Your task to perform on an android device: change text size in settings app Image 0: 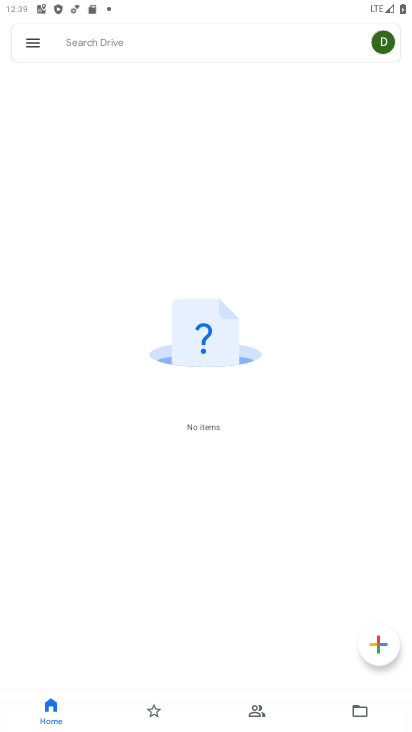
Step 0: press home button
Your task to perform on an android device: change text size in settings app Image 1: 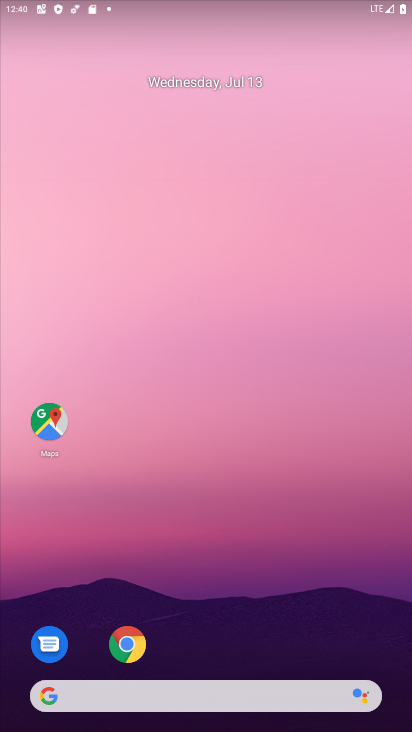
Step 1: drag from (203, 346) to (178, 183)
Your task to perform on an android device: change text size in settings app Image 2: 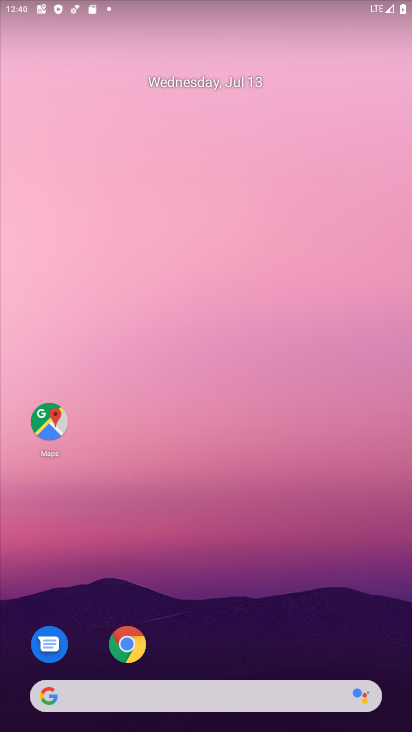
Step 2: drag from (167, 356) to (167, 278)
Your task to perform on an android device: change text size in settings app Image 3: 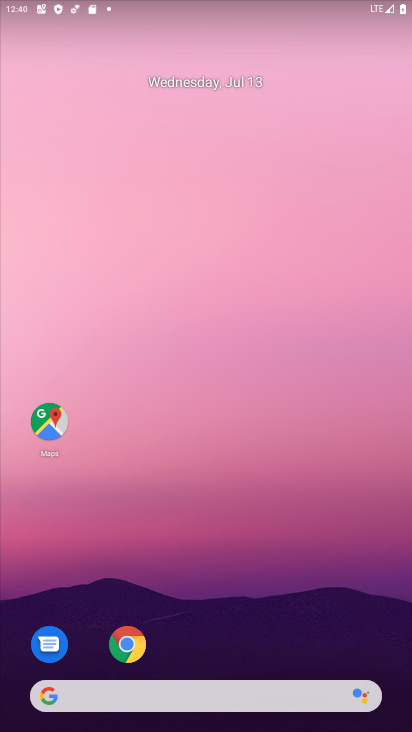
Step 3: drag from (170, 41) to (232, 58)
Your task to perform on an android device: change text size in settings app Image 4: 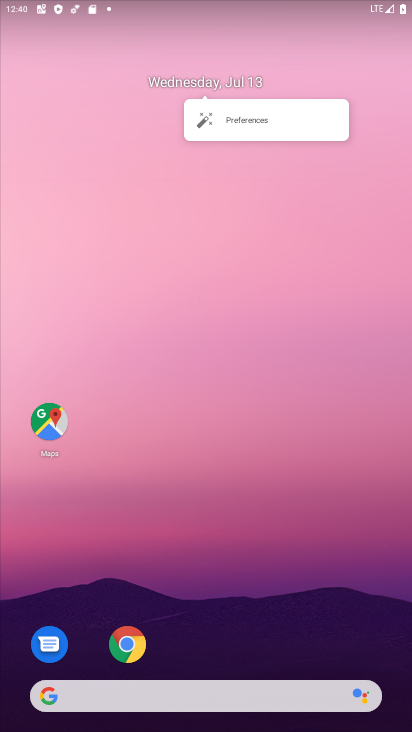
Step 4: drag from (199, 466) to (257, 6)
Your task to perform on an android device: change text size in settings app Image 5: 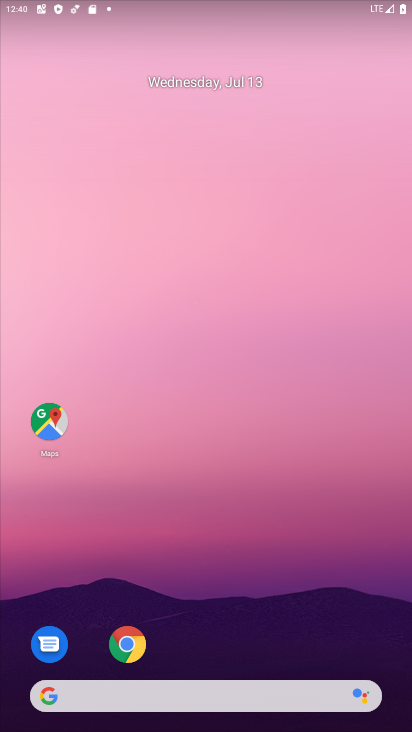
Step 5: drag from (189, 590) to (195, 33)
Your task to perform on an android device: change text size in settings app Image 6: 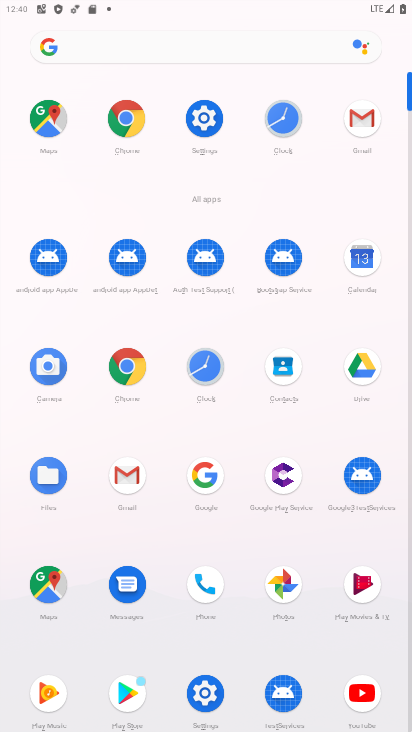
Step 6: click (208, 129)
Your task to perform on an android device: change text size in settings app Image 7: 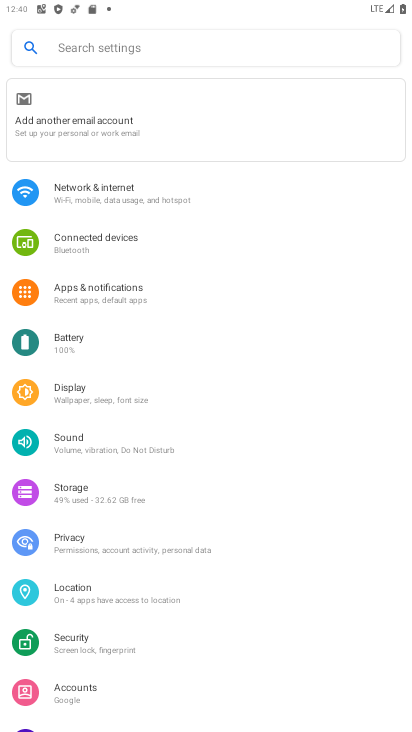
Step 7: click (96, 304)
Your task to perform on an android device: change text size in settings app Image 8: 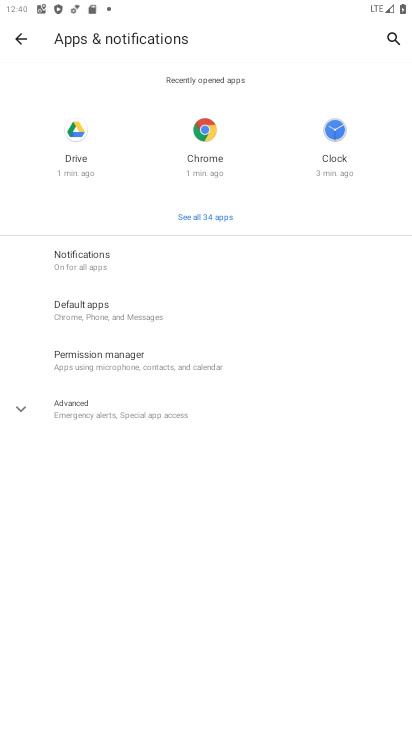
Step 8: click (71, 411)
Your task to perform on an android device: change text size in settings app Image 9: 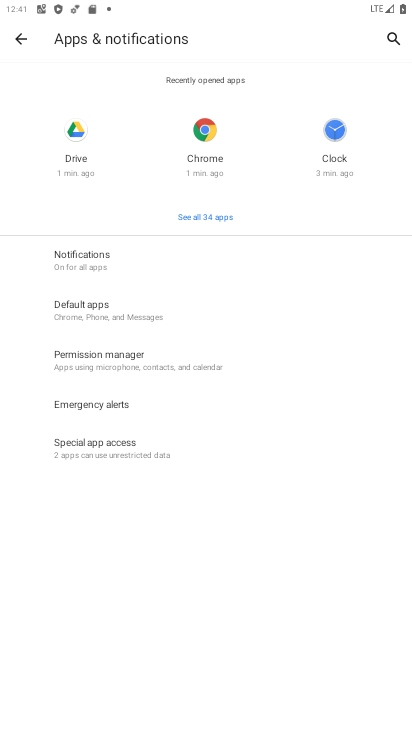
Step 9: click (19, 42)
Your task to perform on an android device: change text size in settings app Image 10: 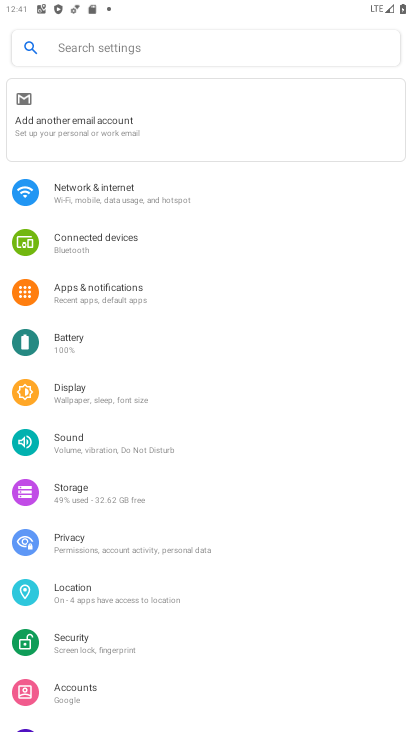
Step 10: click (67, 396)
Your task to perform on an android device: change text size in settings app Image 11: 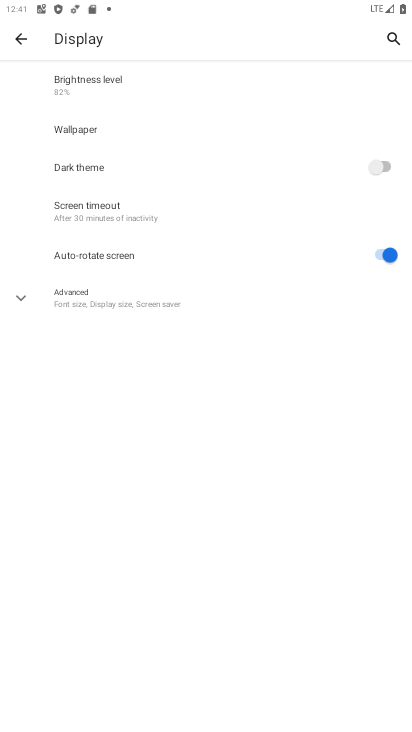
Step 11: click (72, 287)
Your task to perform on an android device: change text size in settings app Image 12: 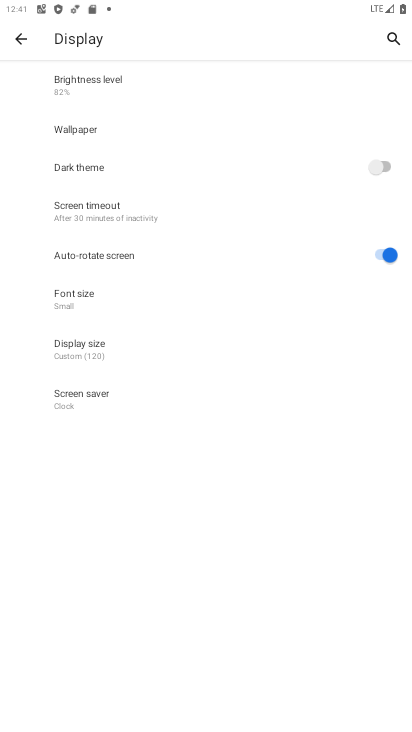
Step 12: click (99, 362)
Your task to perform on an android device: change text size in settings app Image 13: 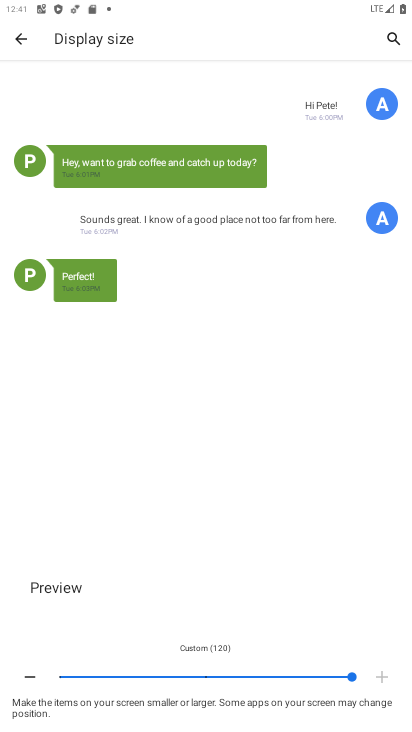
Step 13: click (280, 674)
Your task to perform on an android device: change text size in settings app Image 14: 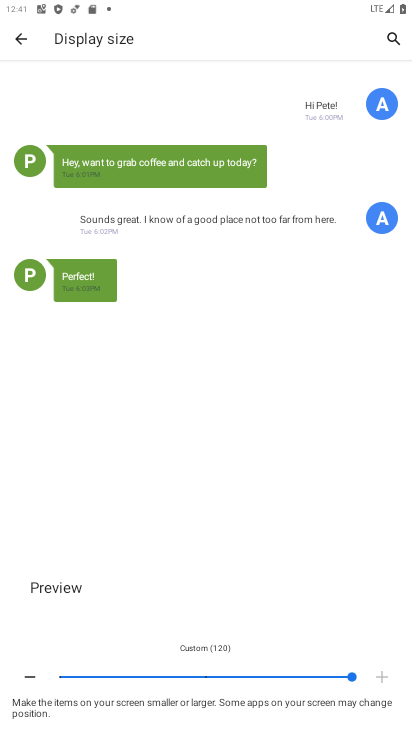
Step 14: click (280, 674)
Your task to perform on an android device: change text size in settings app Image 15: 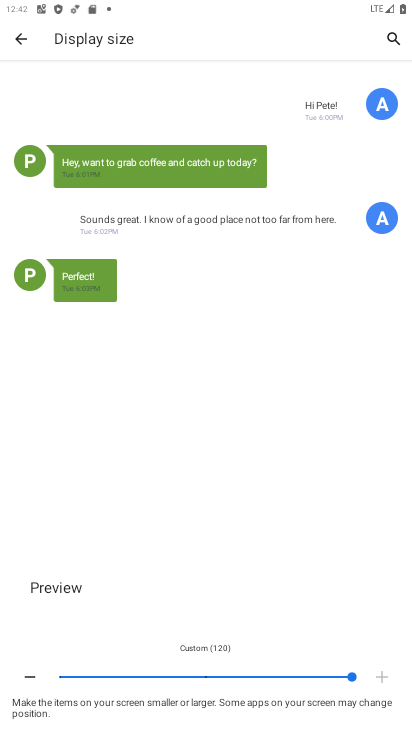
Step 15: click (203, 680)
Your task to perform on an android device: change text size in settings app Image 16: 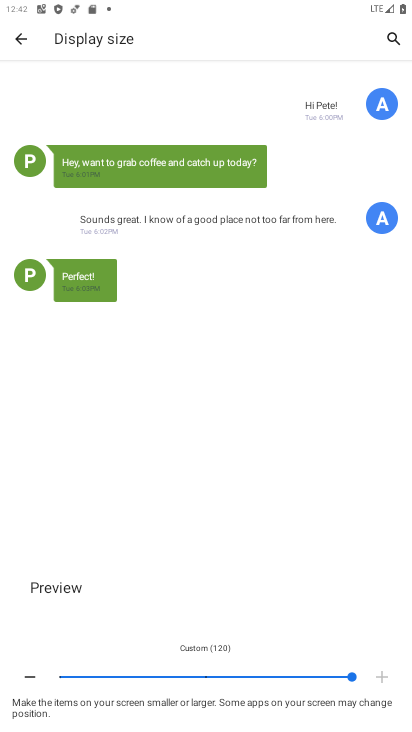
Step 16: click (192, 669)
Your task to perform on an android device: change text size in settings app Image 17: 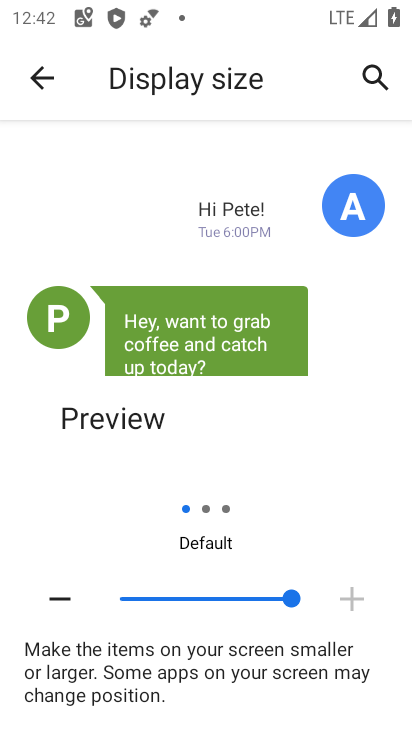
Step 17: click (192, 677)
Your task to perform on an android device: change text size in settings app Image 18: 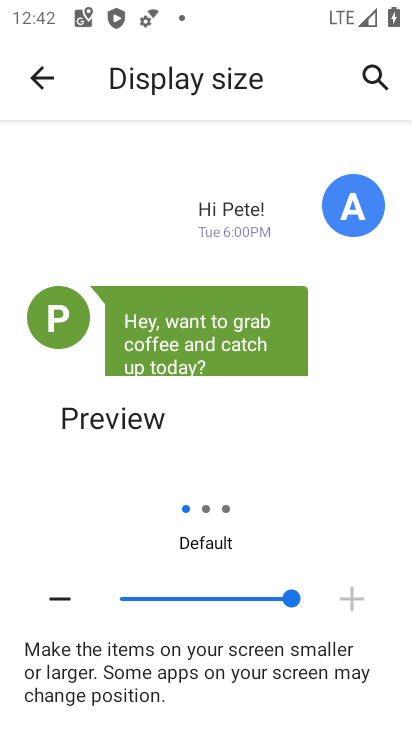
Step 18: click (224, 517)
Your task to perform on an android device: change text size in settings app Image 19: 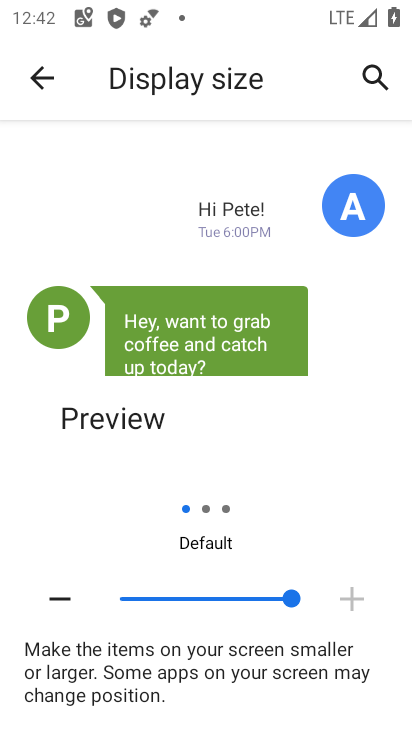
Step 19: click (204, 504)
Your task to perform on an android device: change text size in settings app Image 20: 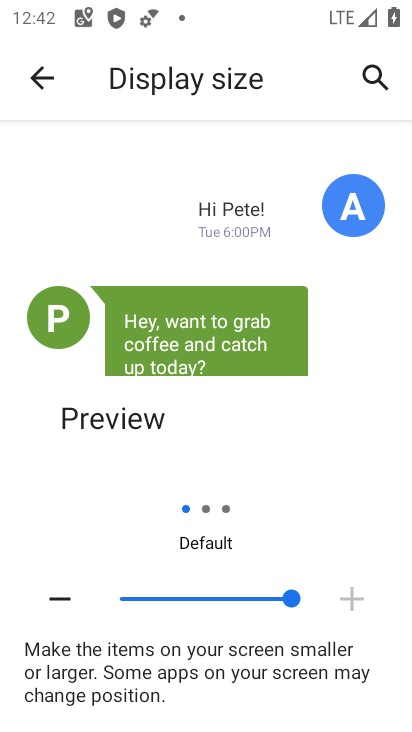
Step 20: click (181, 593)
Your task to perform on an android device: change text size in settings app Image 21: 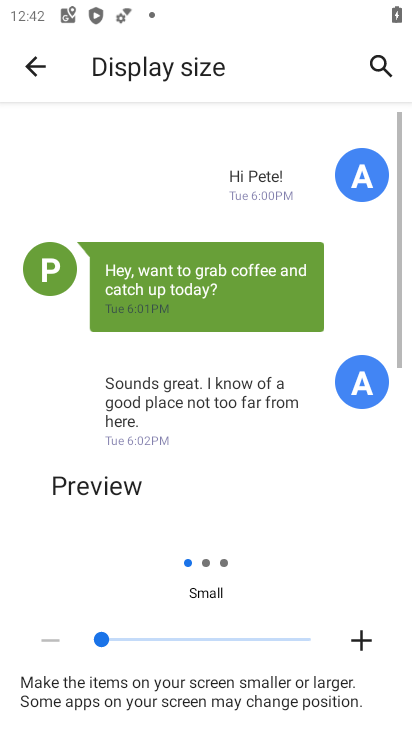
Step 21: click (62, 597)
Your task to perform on an android device: change text size in settings app Image 22: 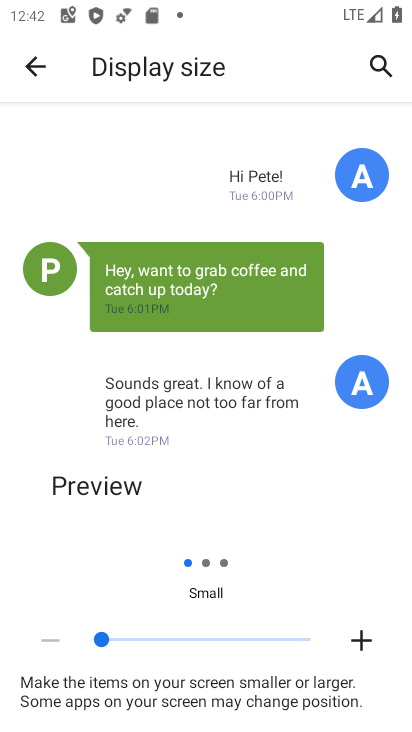
Step 22: task complete